Your task to perform on an android device: open sync settings in chrome Image 0: 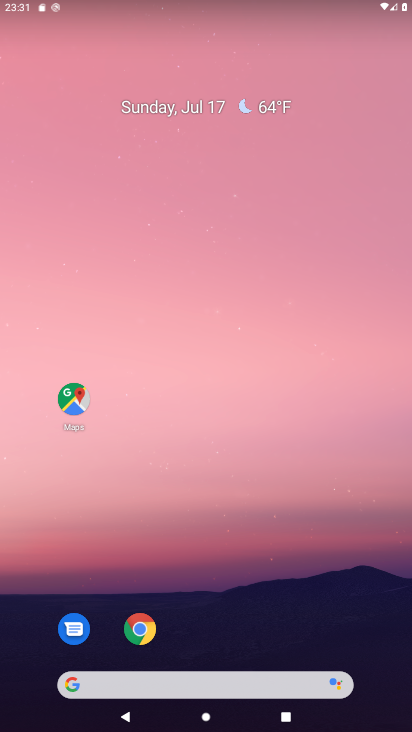
Step 0: drag from (281, 614) to (252, 170)
Your task to perform on an android device: open sync settings in chrome Image 1: 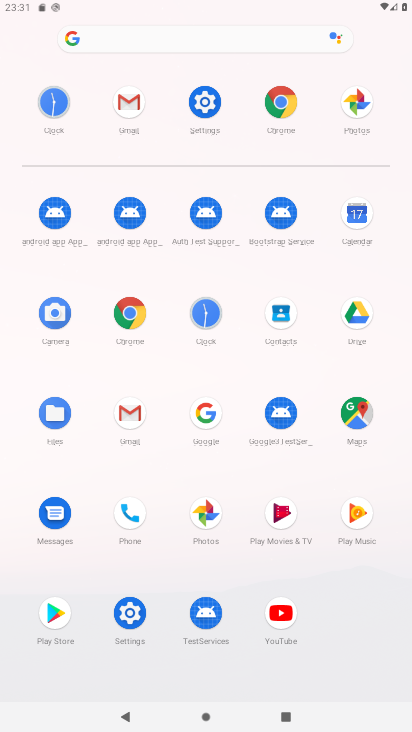
Step 1: click (282, 93)
Your task to perform on an android device: open sync settings in chrome Image 2: 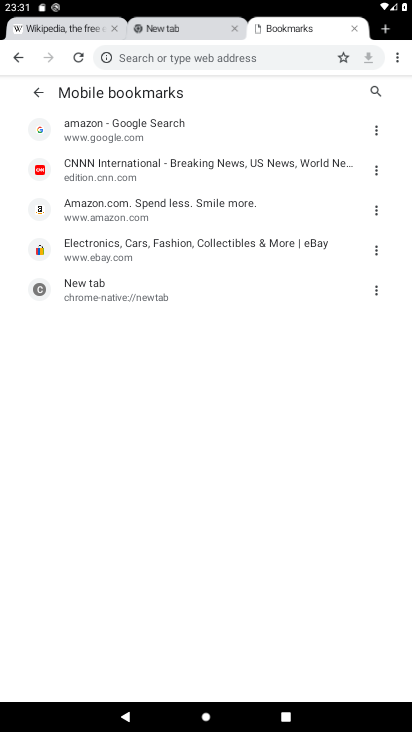
Step 2: click (396, 59)
Your task to perform on an android device: open sync settings in chrome Image 3: 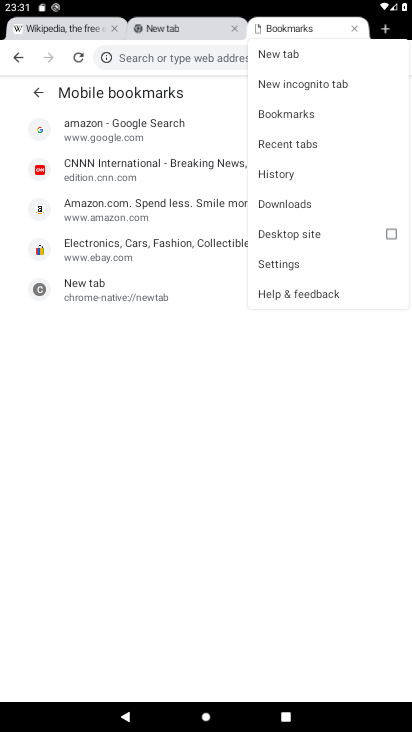
Step 3: click (313, 56)
Your task to perform on an android device: open sync settings in chrome Image 4: 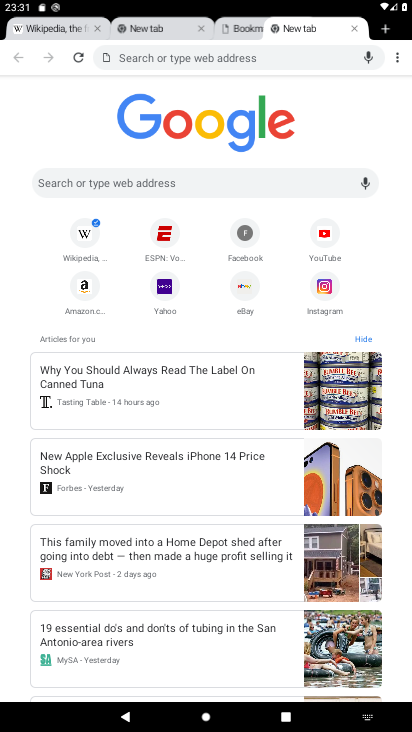
Step 4: click (403, 56)
Your task to perform on an android device: open sync settings in chrome Image 5: 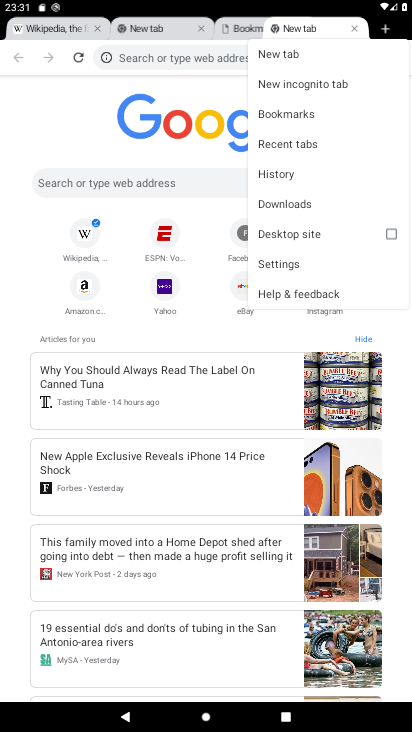
Step 5: click (298, 260)
Your task to perform on an android device: open sync settings in chrome Image 6: 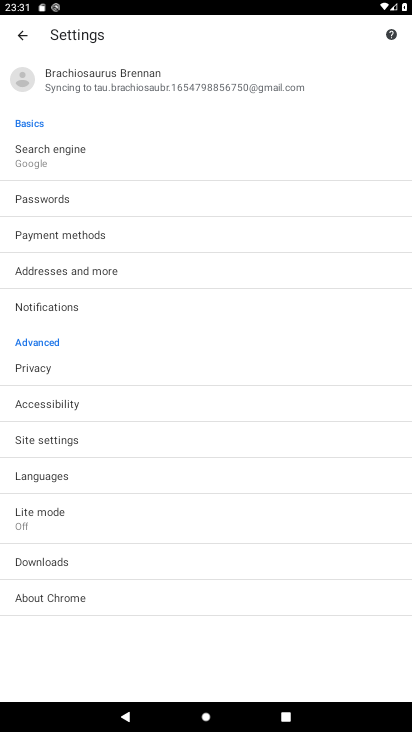
Step 6: click (91, 80)
Your task to perform on an android device: open sync settings in chrome Image 7: 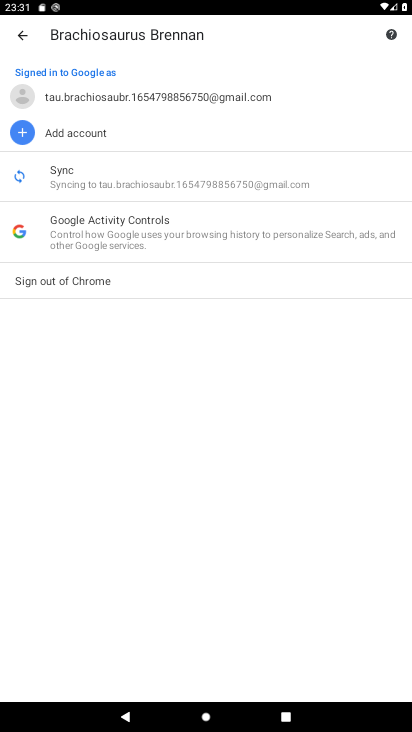
Step 7: click (128, 177)
Your task to perform on an android device: open sync settings in chrome Image 8: 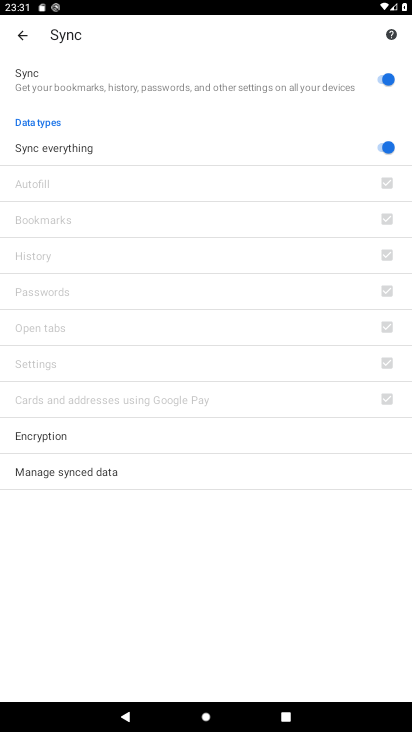
Step 8: task complete